Your task to perform on an android device: uninstall "Adobe Acrobat Reader: Edit PDF" Image 0: 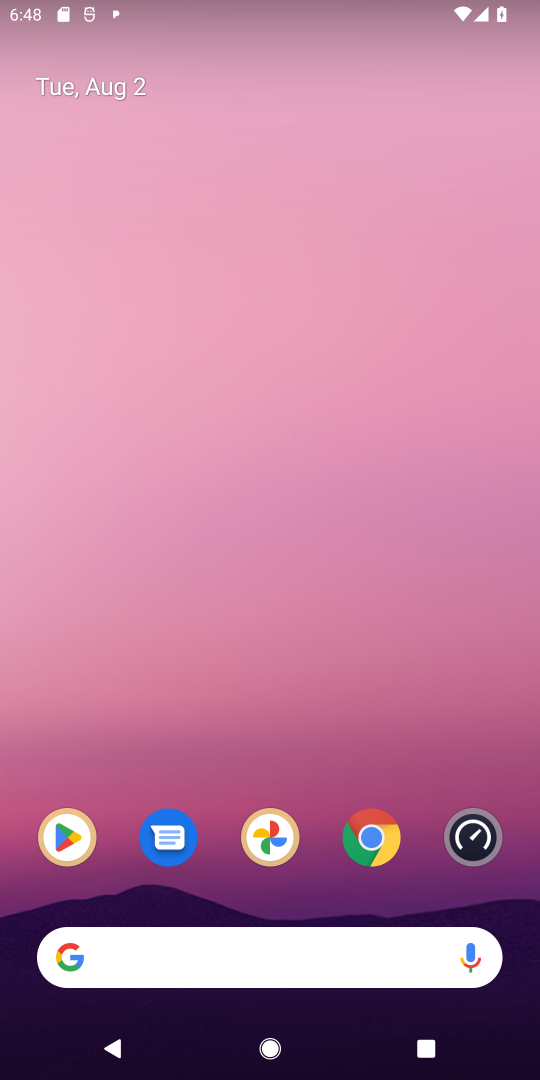
Step 0: click (58, 868)
Your task to perform on an android device: uninstall "Adobe Acrobat Reader: Edit PDF" Image 1: 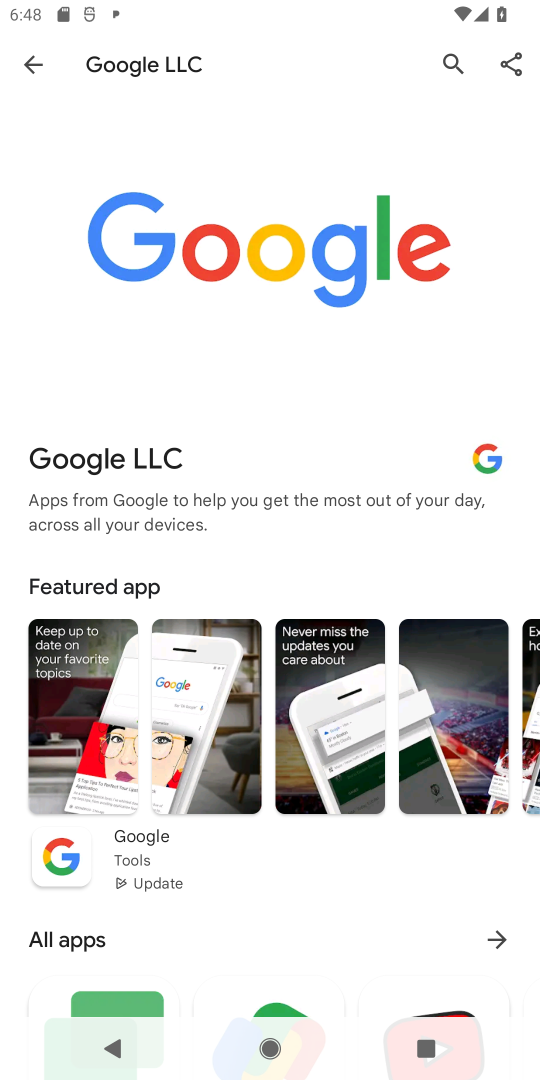
Step 1: click (446, 70)
Your task to perform on an android device: uninstall "Adobe Acrobat Reader: Edit PDF" Image 2: 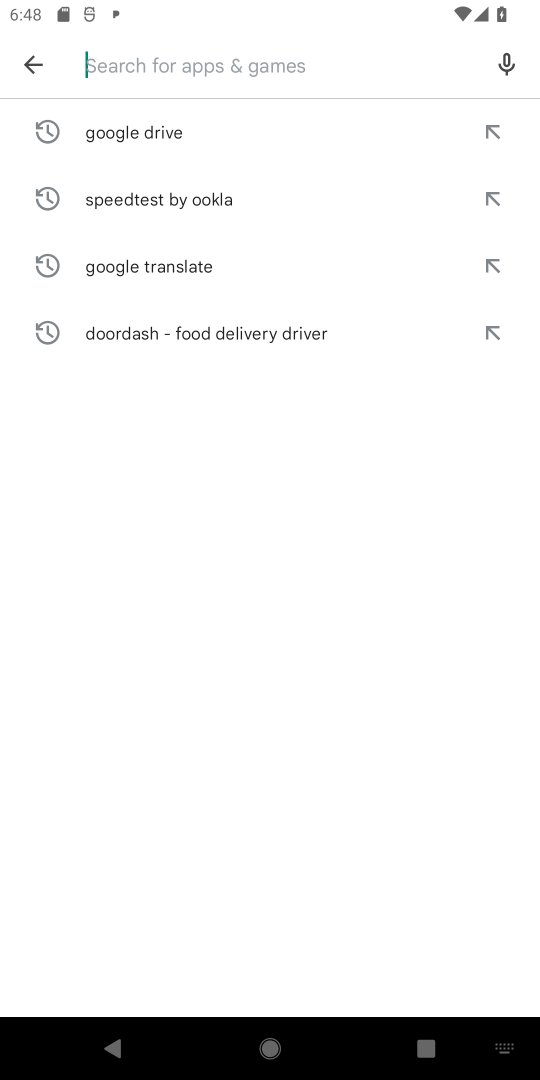
Step 2: type "Adobe Acrobat Reader: Edit PDF"
Your task to perform on an android device: uninstall "Adobe Acrobat Reader: Edit PDF" Image 3: 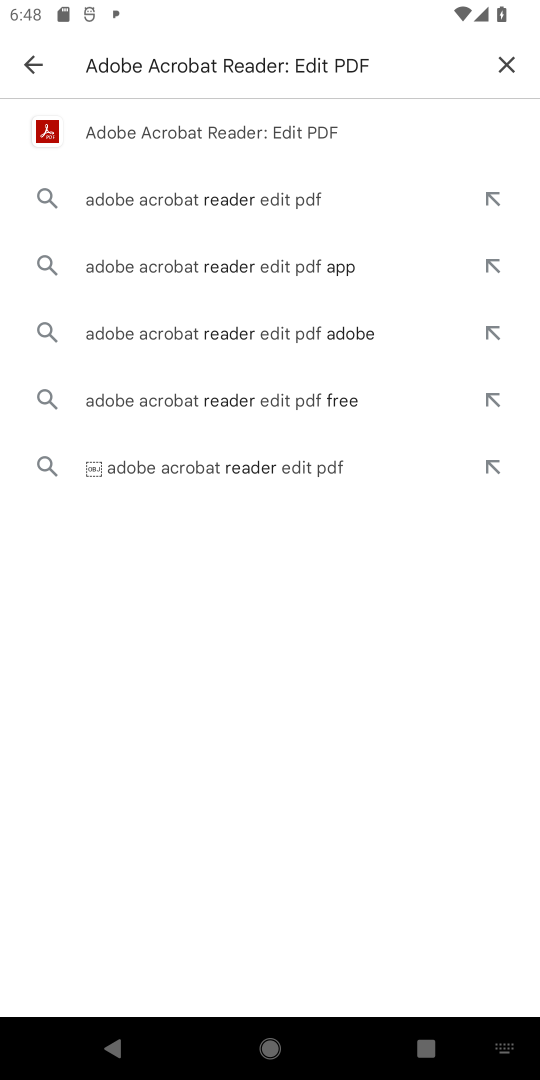
Step 3: click (155, 138)
Your task to perform on an android device: uninstall "Adobe Acrobat Reader: Edit PDF" Image 4: 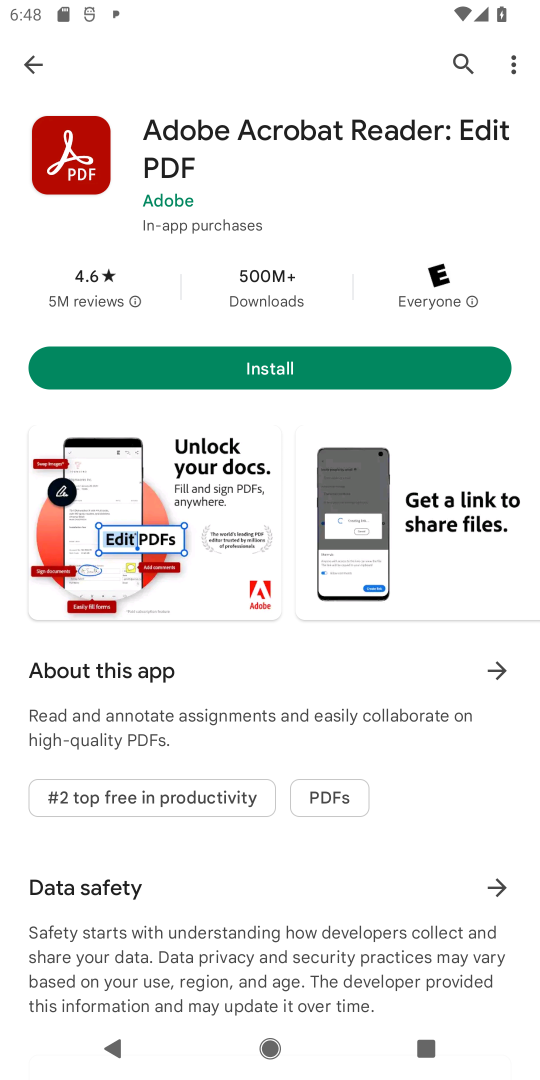
Step 4: task complete